Your task to perform on an android device: toggle pop-ups in chrome Image 0: 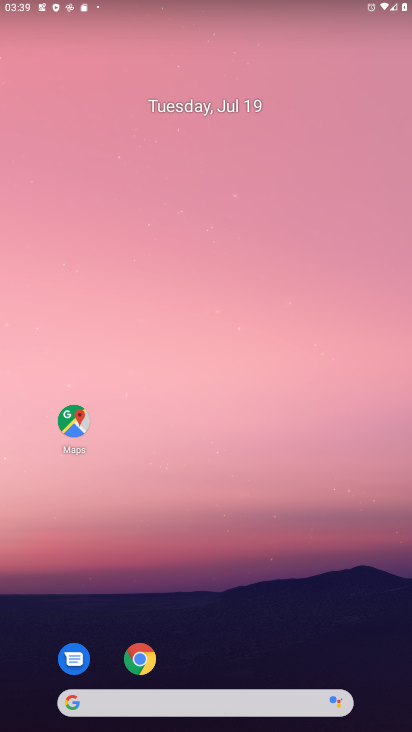
Step 0: press home button
Your task to perform on an android device: toggle pop-ups in chrome Image 1: 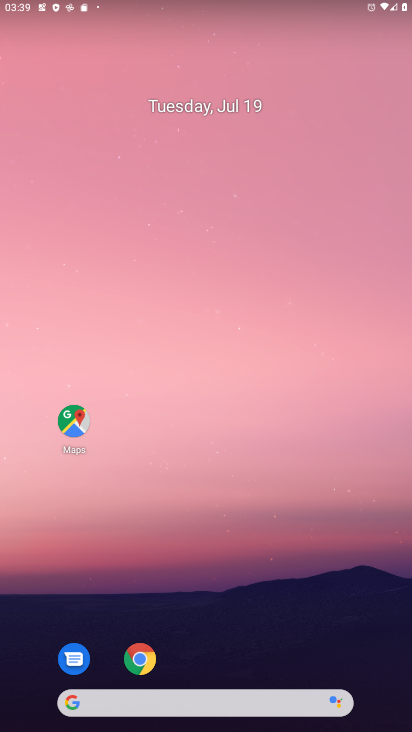
Step 1: click (140, 662)
Your task to perform on an android device: toggle pop-ups in chrome Image 2: 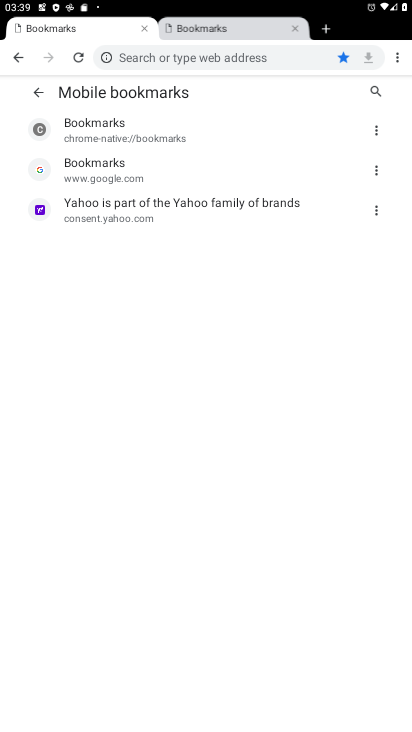
Step 2: drag from (400, 51) to (283, 294)
Your task to perform on an android device: toggle pop-ups in chrome Image 3: 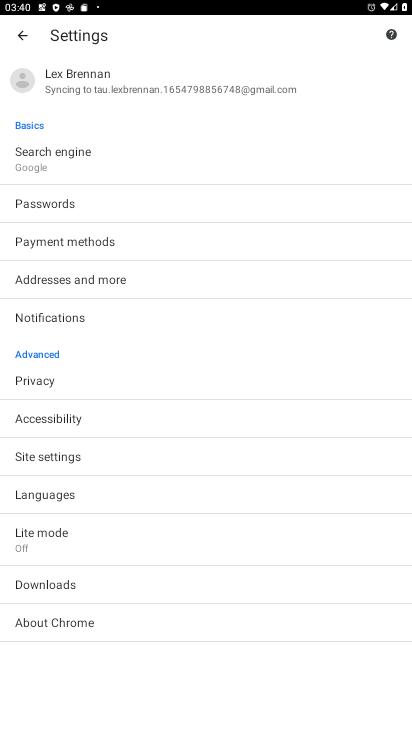
Step 3: click (41, 466)
Your task to perform on an android device: toggle pop-ups in chrome Image 4: 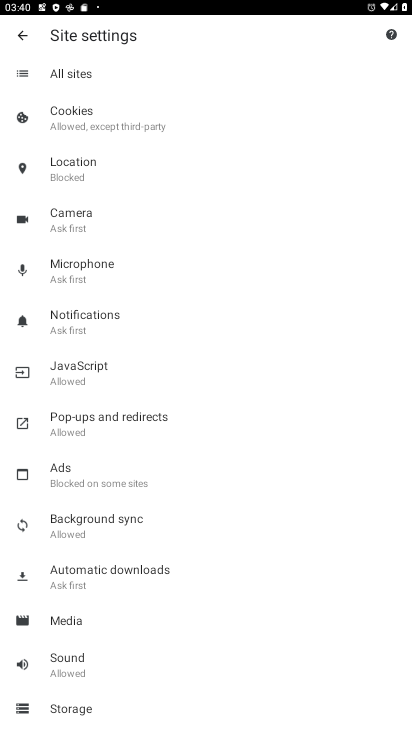
Step 4: click (91, 427)
Your task to perform on an android device: toggle pop-ups in chrome Image 5: 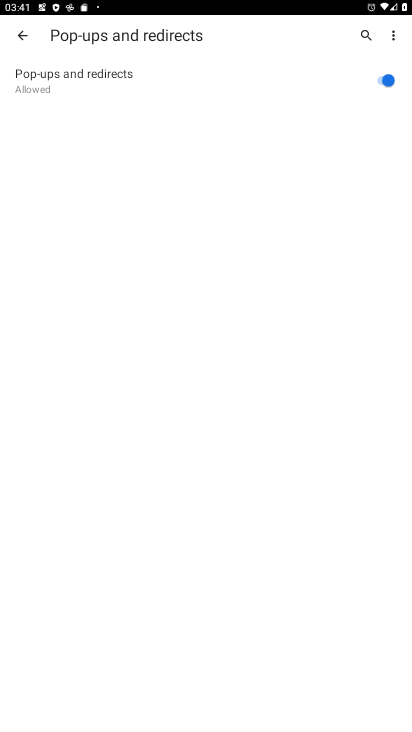
Step 5: click (232, 73)
Your task to perform on an android device: toggle pop-ups in chrome Image 6: 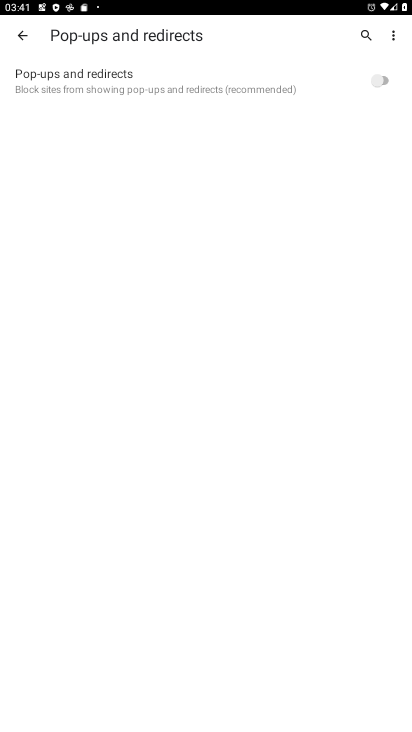
Step 6: task complete